Your task to perform on an android device: turn off sleep mode Image 0: 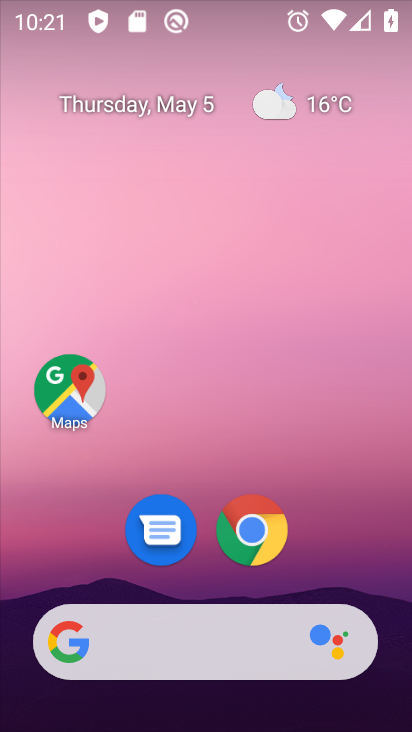
Step 0: drag from (336, 554) to (311, 1)
Your task to perform on an android device: turn off sleep mode Image 1: 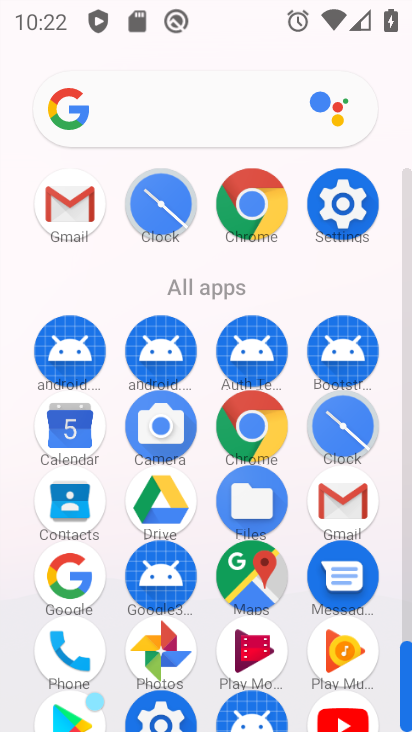
Step 1: click (342, 221)
Your task to perform on an android device: turn off sleep mode Image 2: 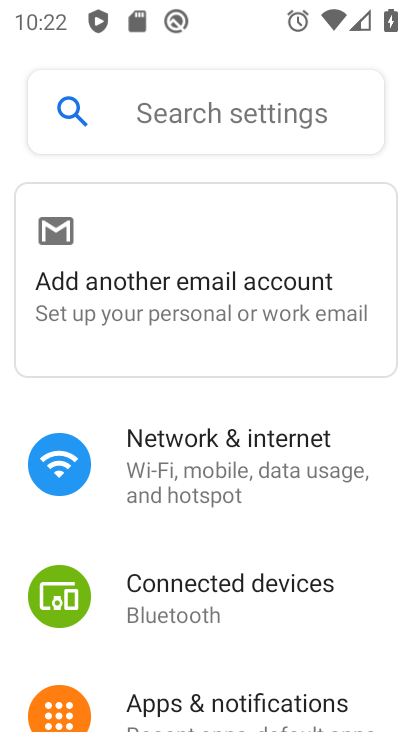
Step 2: drag from (260, 531) to (333, 74)
Your task to perform on an android device: turn off sleep mode Image 3: 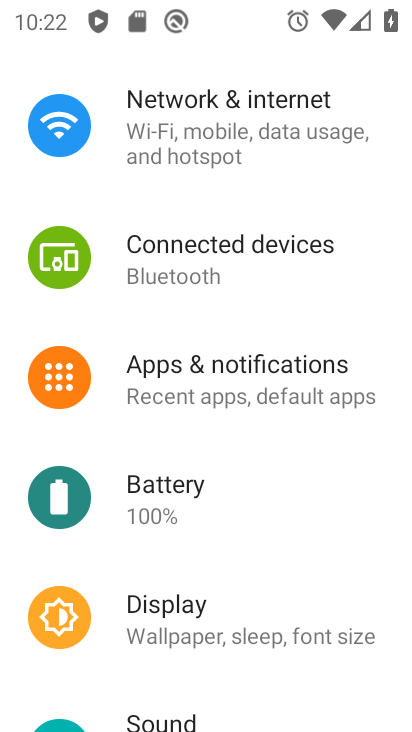
Step 3: drag from (234, 622) to (287, 242)
Your task to perform on an android device: turn off sleep mode Image 4: 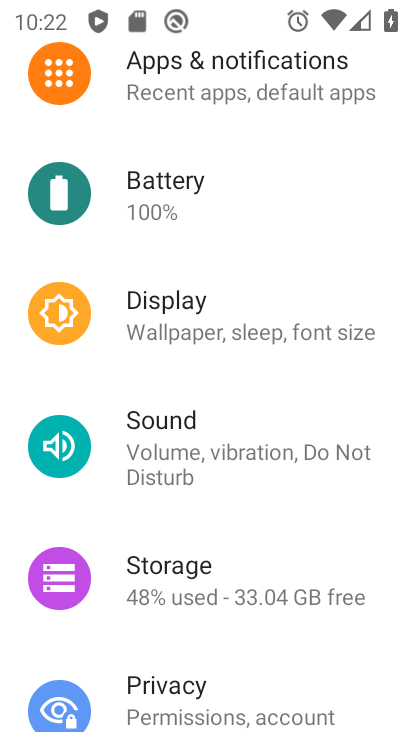
Step 4: click (190, 305)
Your task to perform on an android device: turn off sleep mode Image 5: 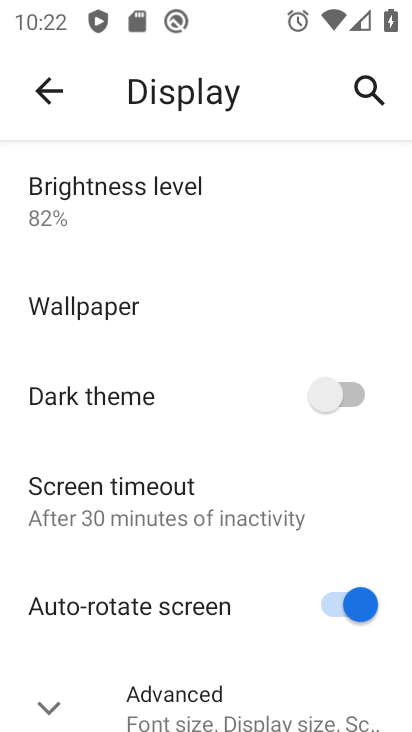
Step 5: click (96, 499)
Your task to perform on an android device: turn off sleep mode Image 6: 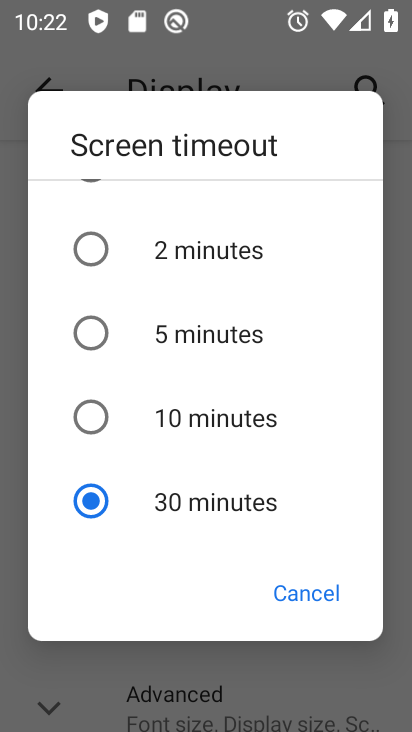
Step 6: click (88, 335)
Your task to perform on an android device: turn off sleep mode Image 7: 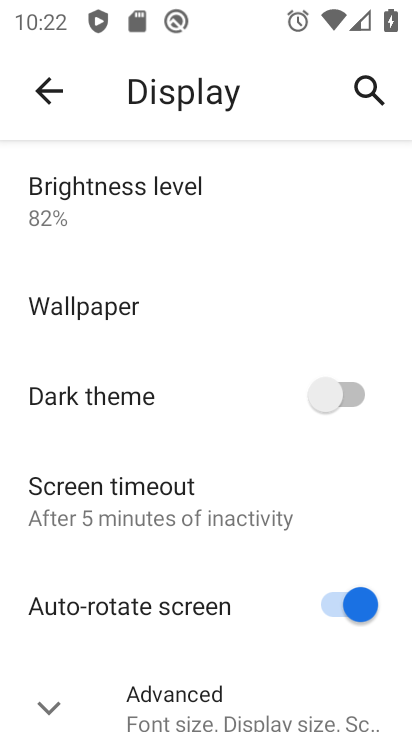
Step 7: task complete